Your task to perform on an android device: Search for "razer blade" on walmart, select the first entry, and add it to the cart. Image 0: 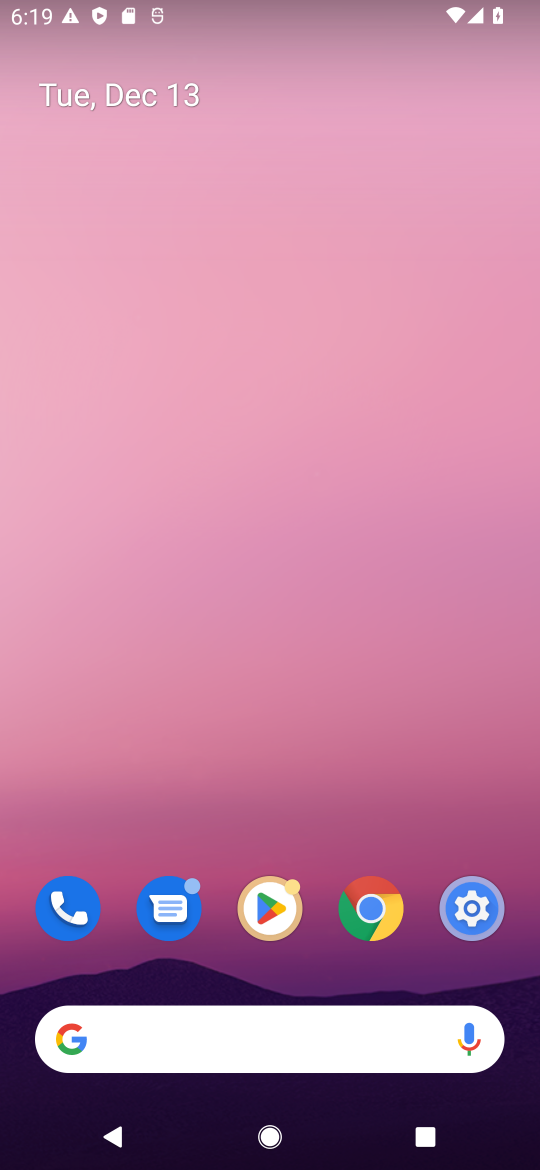
Step 0: click (106, 1040)
Your task to perform on an android device: Search for "razer blade" on walmart, select the first entry, and add it to the cart. Image 1: 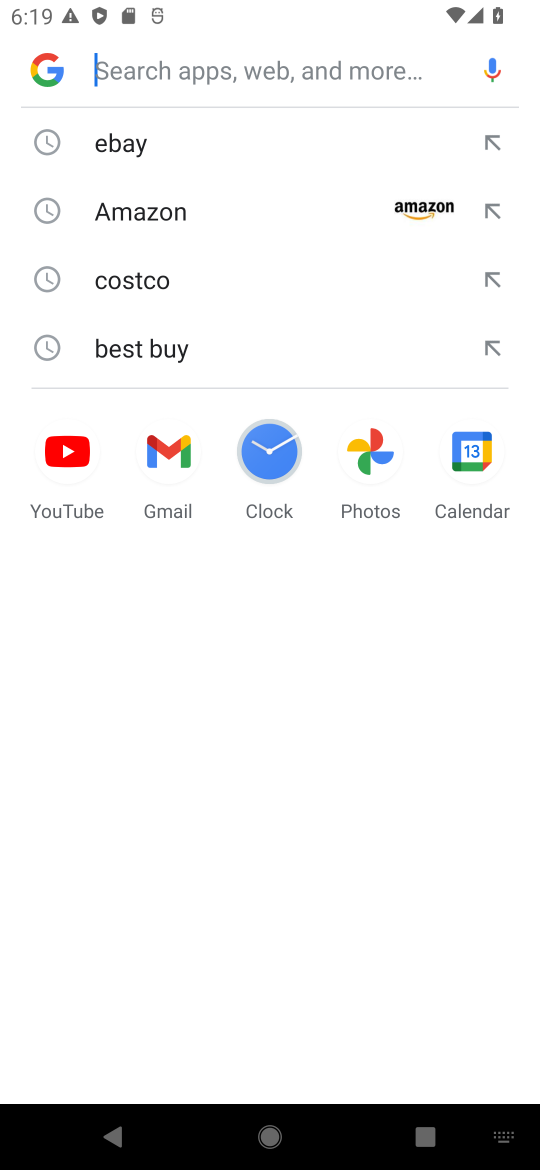
Step 1: press enter
Your task to perform on an android device: Search for "razer blade" on walmart, select the first entry, and add it to the cart. Image 2: 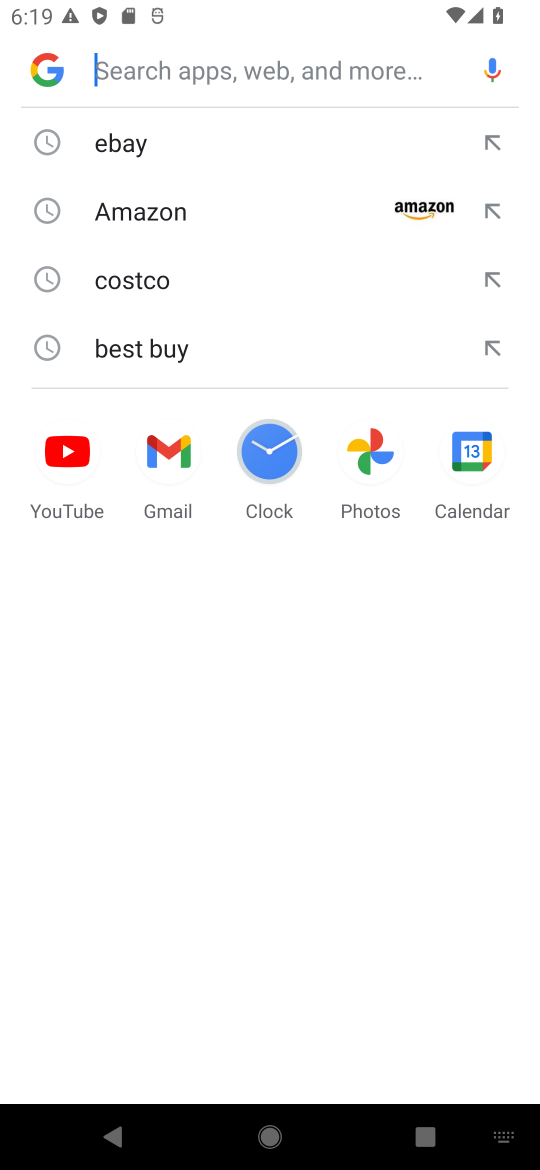
Step 2: type "walmart"
Your task to perform on an android device: Search for "razer blade" on walmart, select the first entry, and add it to the cart. Image 3: 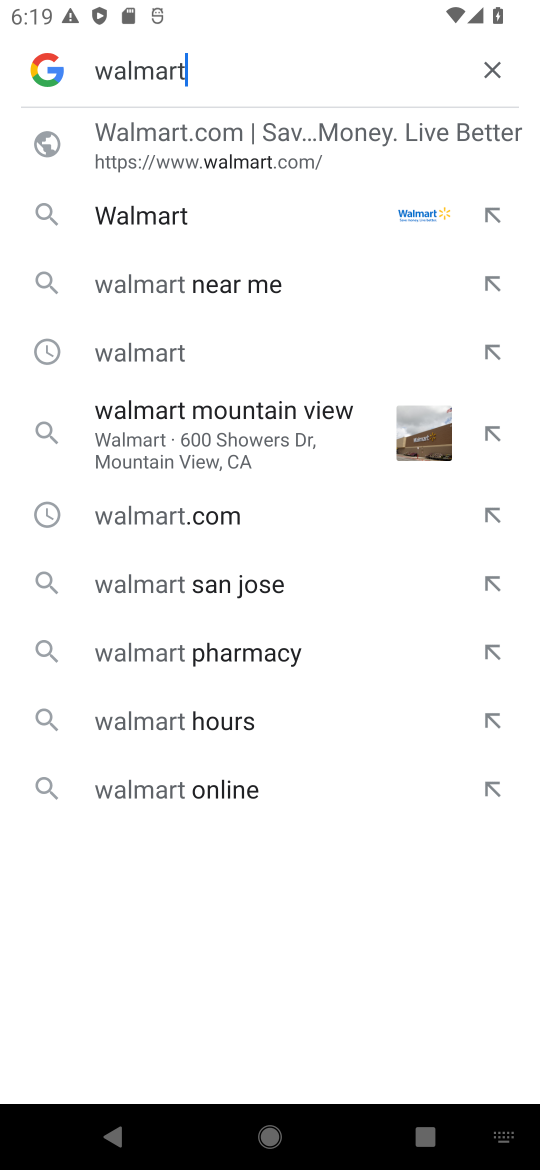
Step 3: press enter
Your task to perform on an android device: Search for "razer blade" on walmart, select the first entry, and add it to the cart. Image 4: 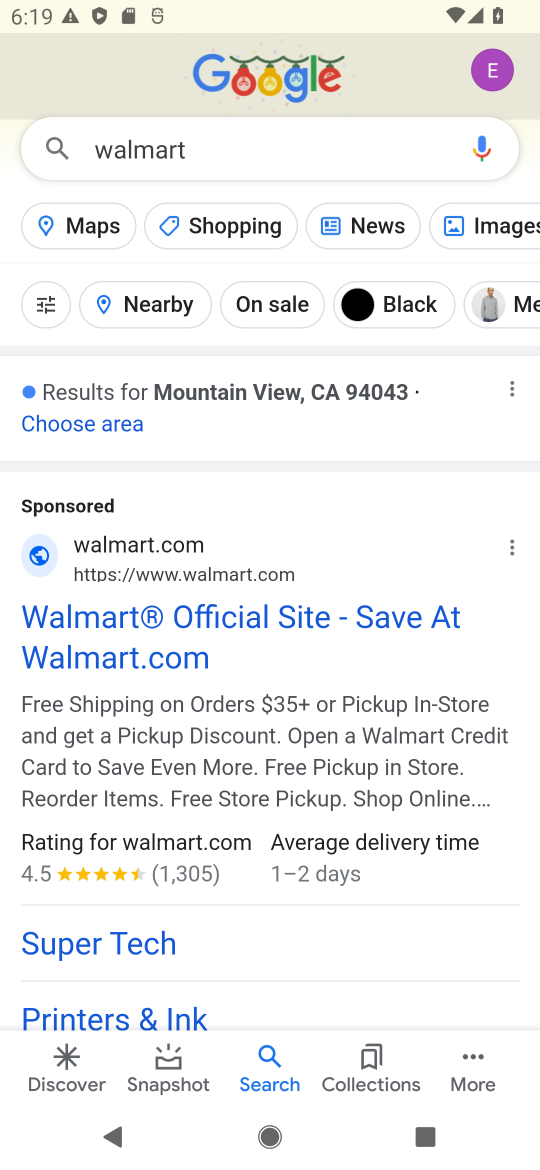
Step 4: click (125, 621)
Your task to perform on an android device: Search for "razer blade" on walmart, select the first entry, and add it to the cart. Image 5: 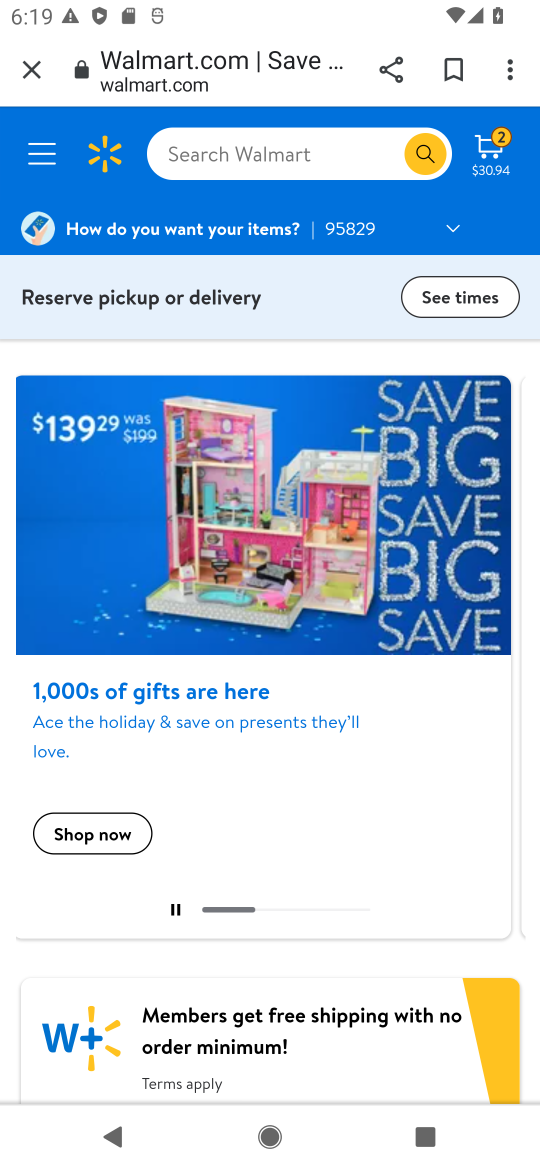
Step 5: click (221, 155)
Your task to perform on an android device: Search for "razer blade" on walmart, select the first entry, and add it to the cart. Image 6: 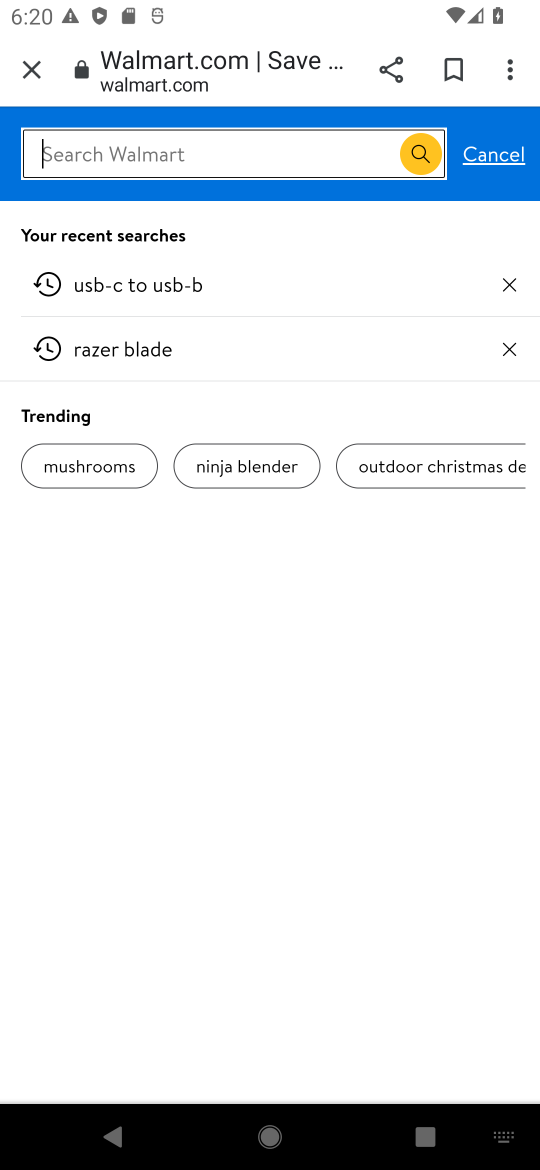
Step 6: type "razer blade"
Your task to perform on an android device: Search for "razer blade" on walmart, select the first entry, and add it to the cart. Image 7: 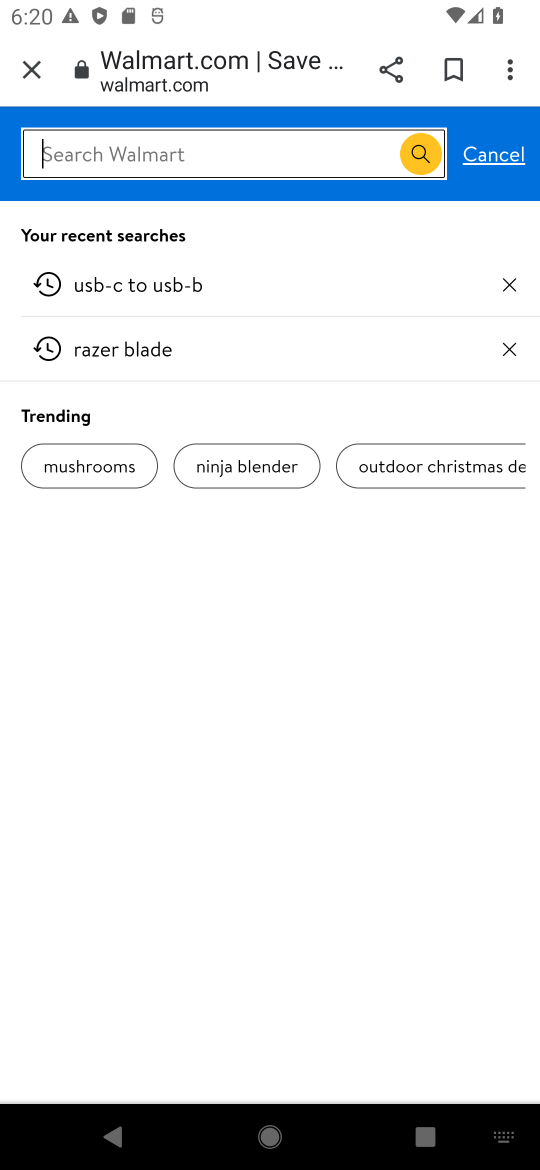
Step 7: press enter
Your task to perform on an android device: Search for "razer blade" on walmart, select the first entry, and add it to the cart. Image 8: 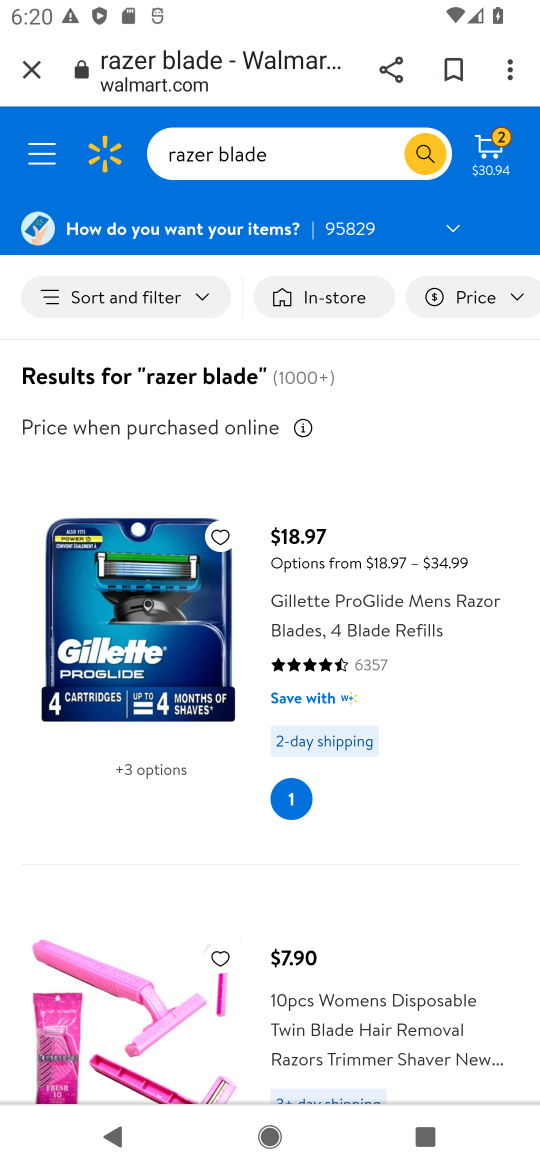
Step 8: click (333, 599)
Your task to perform on an android device: Search for "razer blade" on walmart, select the first entry, and add it to the cart. Image 9: 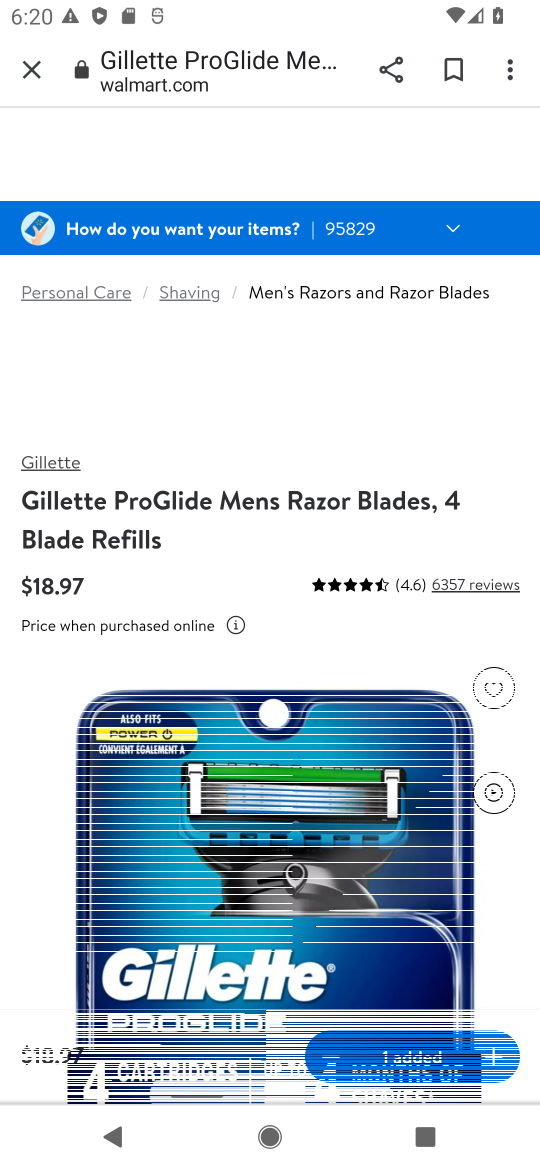
Step 9: drag from (369, 772) to (395, 390)
Your task to perform on an android device: Search for "razer blade" on walmart, select the first entry, and add it to the cart. Image 10: 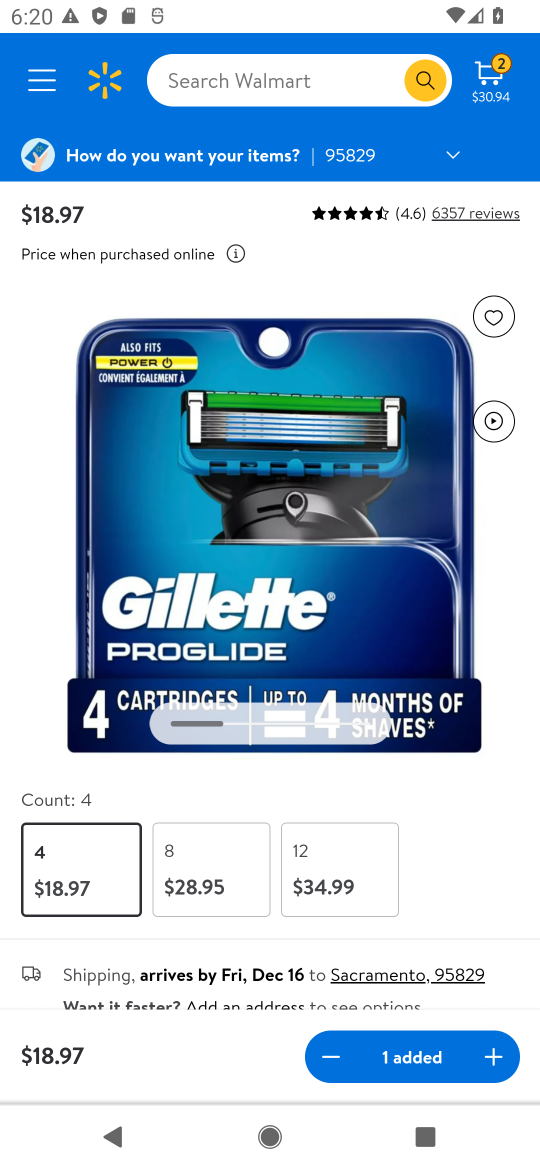
Step 10: click (397, 1058)
Your task to perform on an android device: Search for "razer blade" on walmart, select the first entry, and add it to the cart. Image 11: 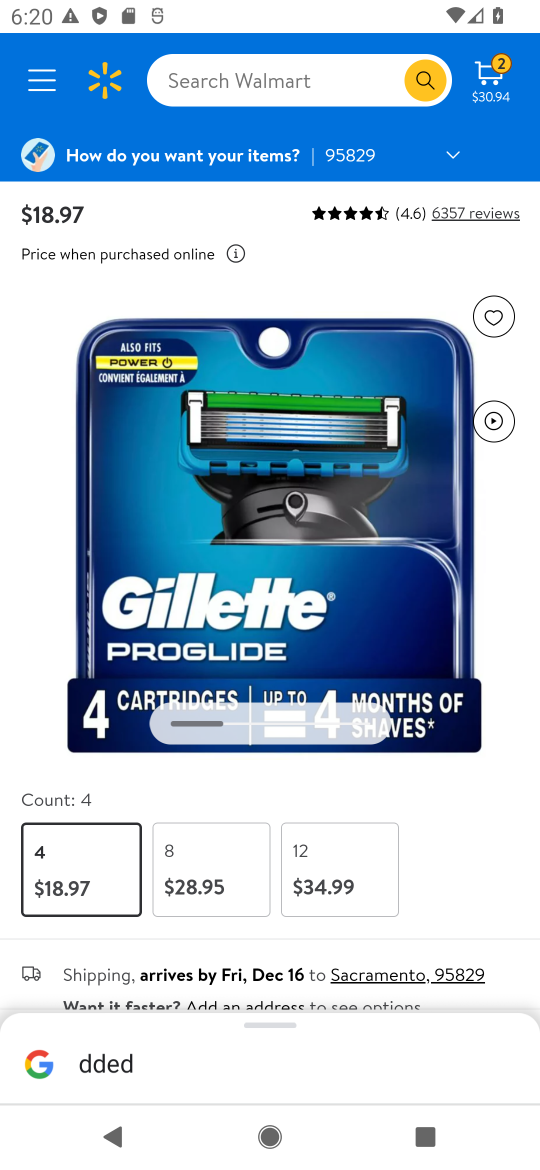
Step 11: task complete